Your task to perform on an android device: Search for sushi restaurants on Maps Image 0: 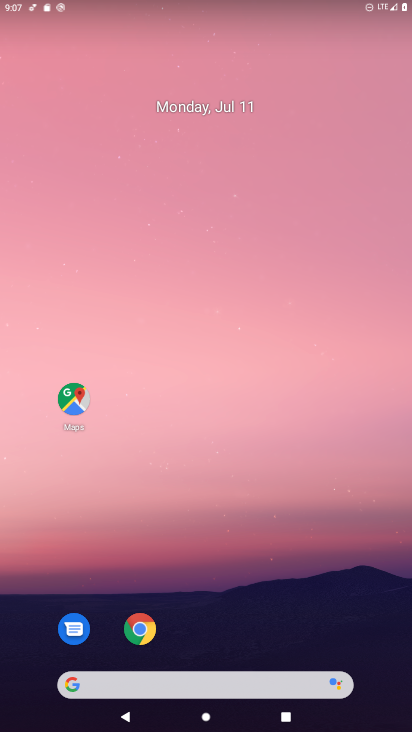
Step 0: click (72, 383)
Your task to perform on an android device: Search for sushi restaurants on Maps Image 1: 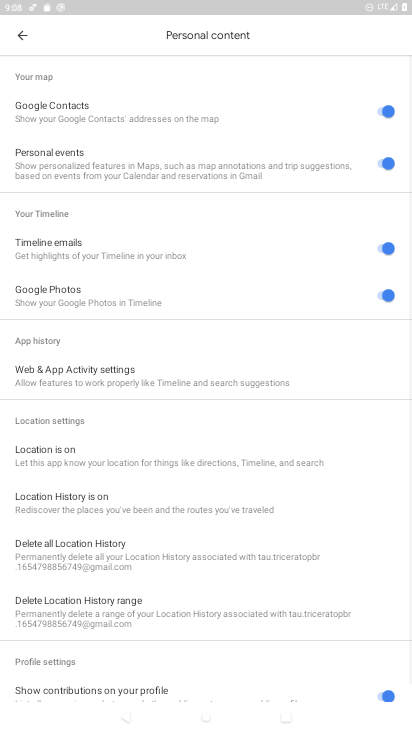
Step 1: click (27, 25)
Your task to perform on an android device: Search for sushi restaurants on Maps Image 2: 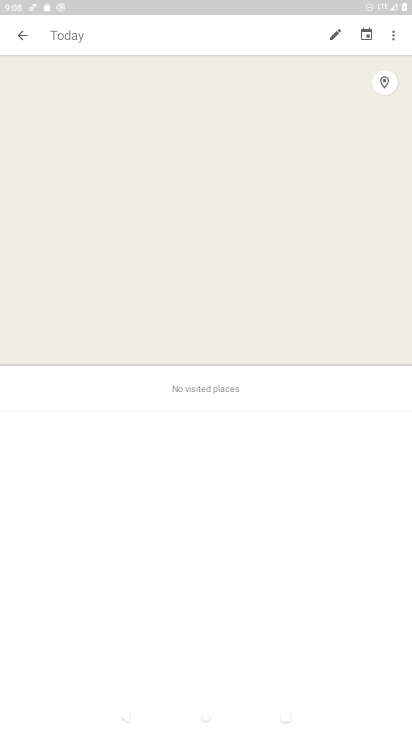
Step 2: click (27, 25)
Your task to perform on an android device: Search for sushi restaurants on Maps Image 3: 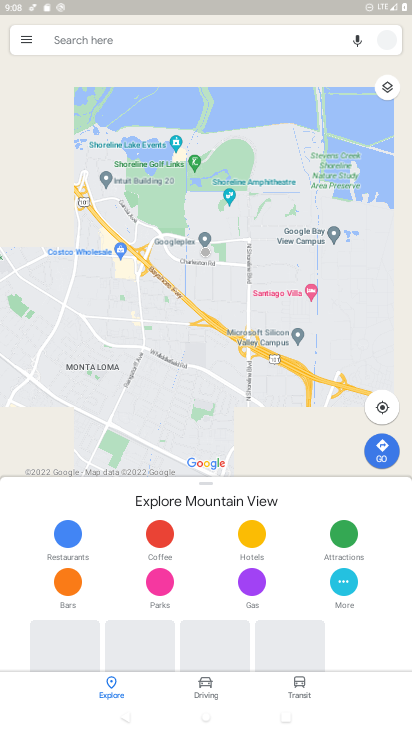
Step 3: click (186, 31)
Your task to perform on an android device: Search for sushi restaurants on Maps Image 4: 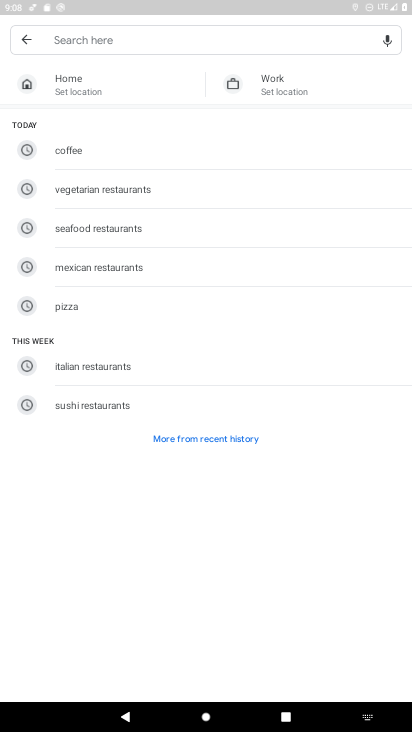
Step 4: click (84, 408)
Your task to perform on an android device: Search for sushi restaurants on Maps Image 5: 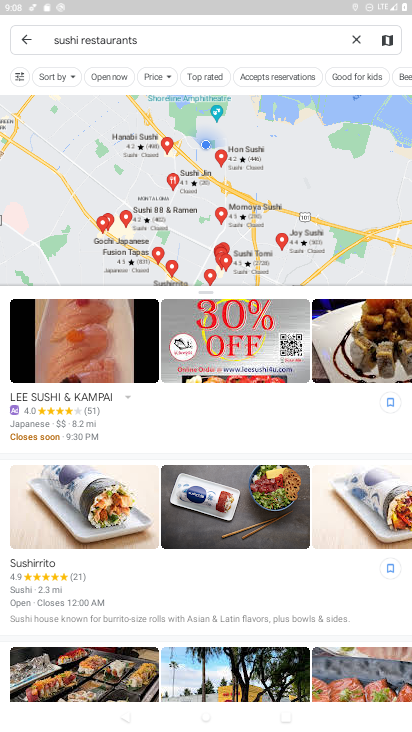
Step 5: task complete